Your task to perform on an android device: check out phone information Image 0: 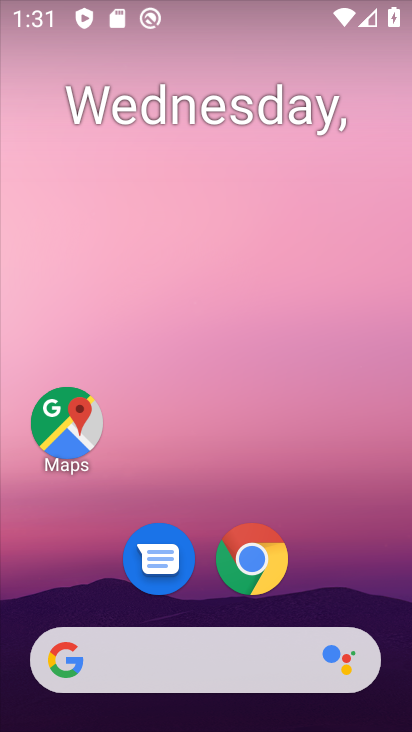
Step 0: drag from (201, 668) to (53, 47)
Your task to perform on an android device: check out phone information Image 1: 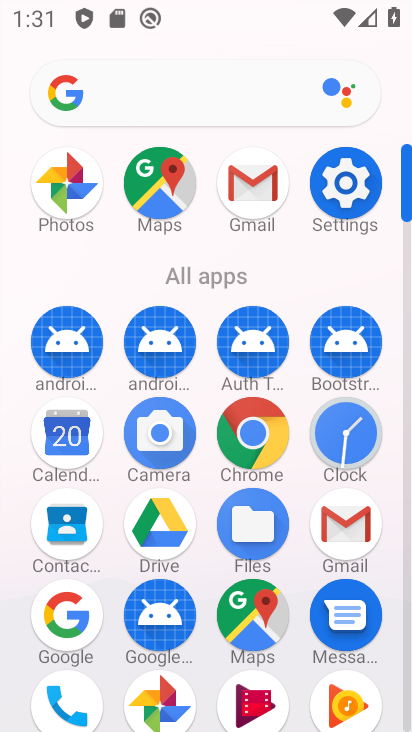
Step 1: click (345, 207)
Your task to perform on an android device: check out phone information Image 2: 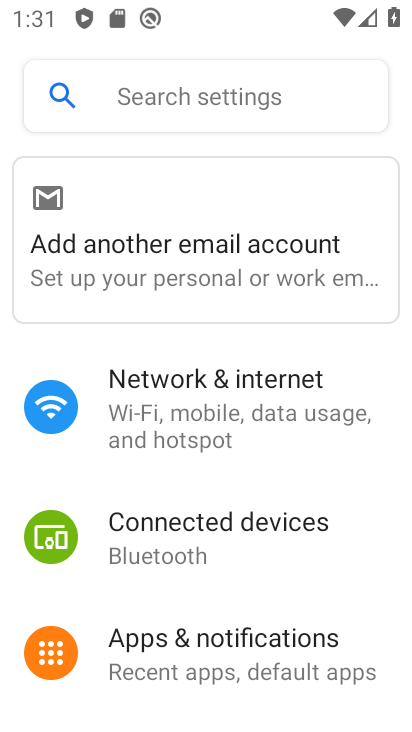
Step 2: drag from (232, 593) to (143, 65)
Your task to perform on an android device: check out phone information Image 3: 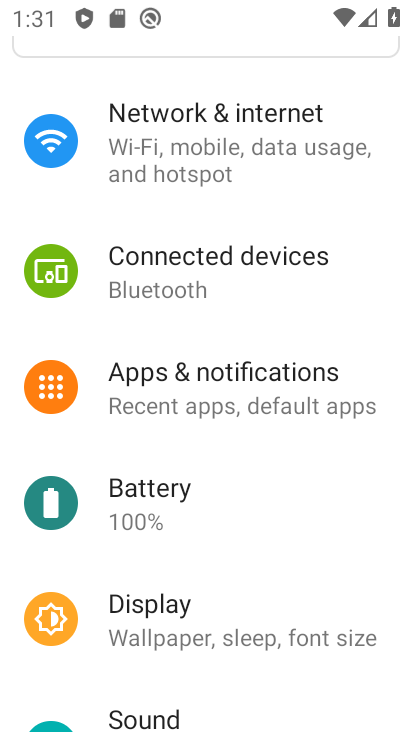
Step 3: drag from (231, 648) to (174, 148)
Your task to perform on an android device: check out phone information Image 4: 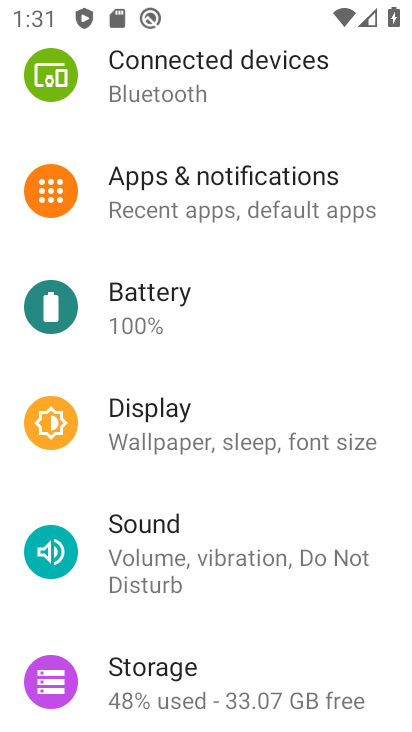
Step 4: drag from (238, 651) to (182, 177)
Your task to perform on an android device: check out phone information Image 5: 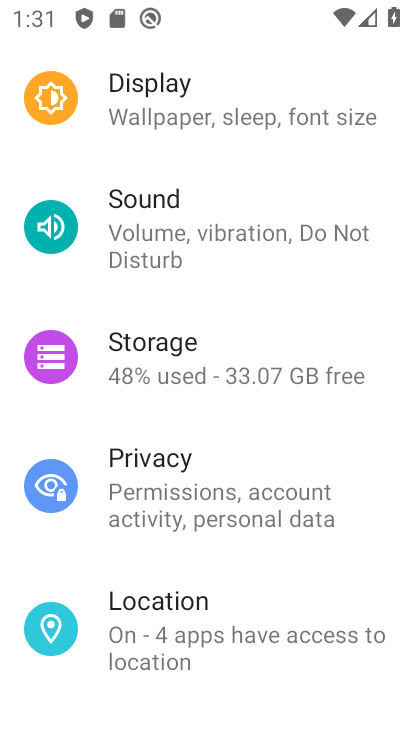
Step 5: drag from (207, 604) to (162, 187)
Your task to perform on an android device: check out phone information Image 6: 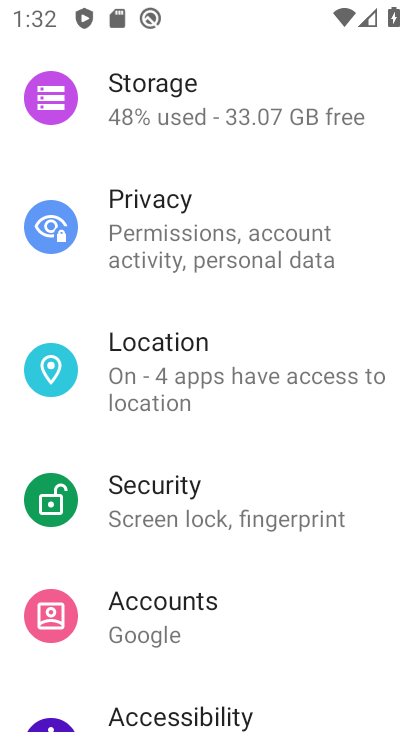
Step 6: drag from (249, 638) to (145, 0)
Your task to perform on an android device: check out phone information Image 7: 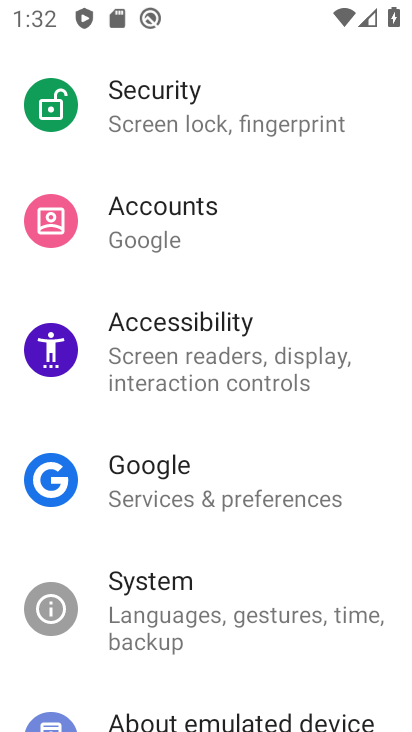
Step 7: drag from (194, 577) to (136, 149)
Your task to perform on an android device: check out phone information Image 8: 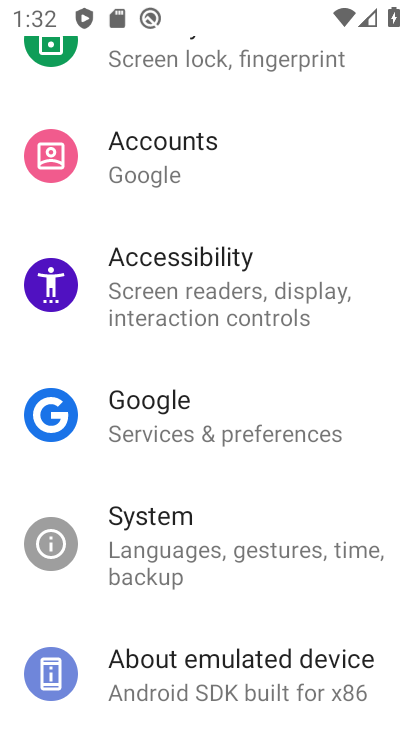
Step 8: click (203, 673)
Your task to perform on an android device: check out phone information Image 9: 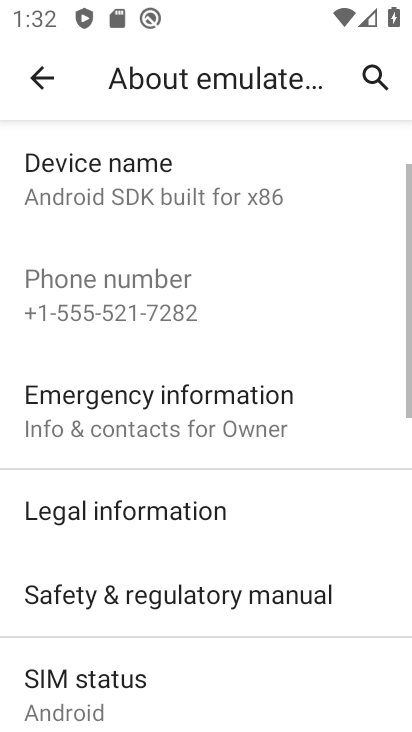
Step 9: task complete